Your task to perform on an android device: Open accessibility settings Image 0: 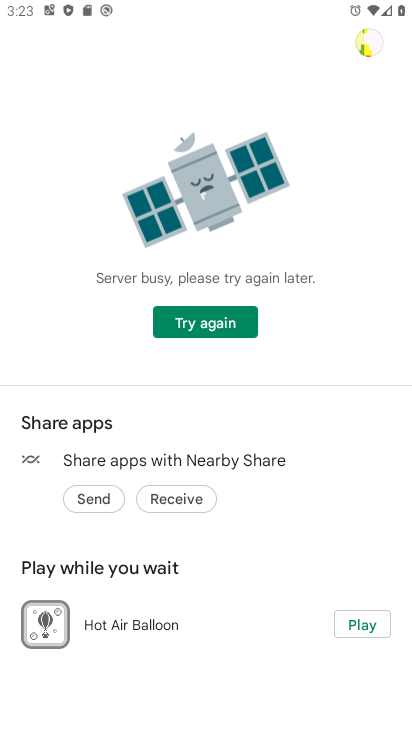
Step 0: press home button
Your task to perform on an android device: Open accessibility settings Image 1: 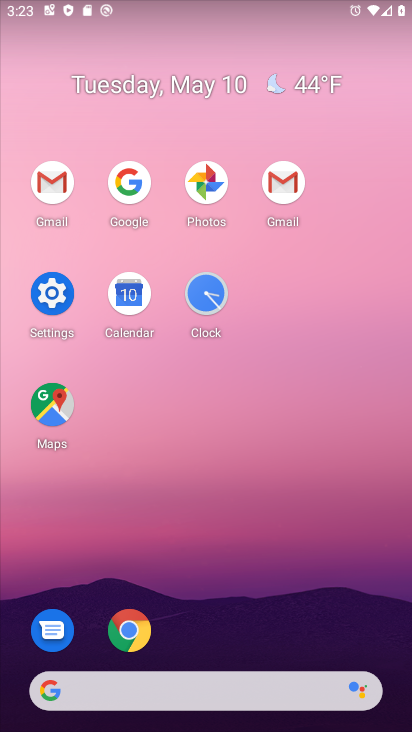
Step 1: click (57, 303)
Your task to perform on an android device: Open accessibility settings Image 2: 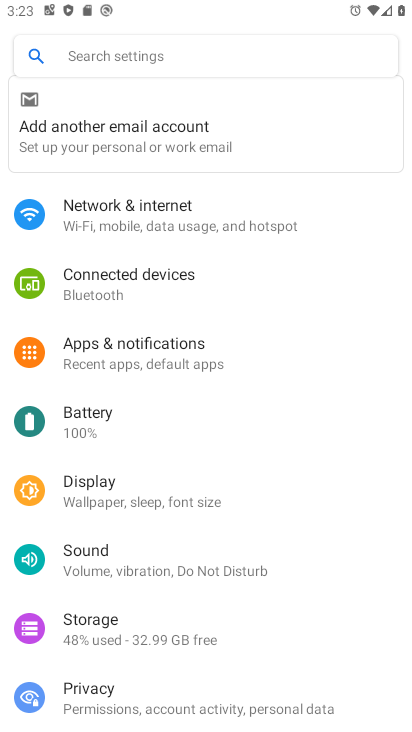
Step 2: drag from (246, 637) to (265, 180)
Your task to perform on an android device: Open accessibility settings Image 3: 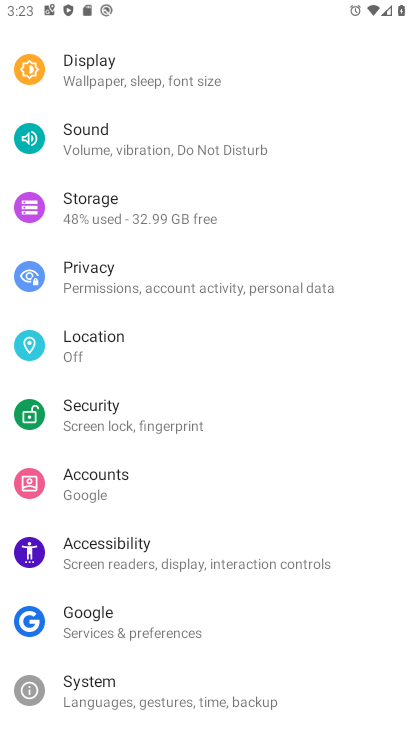
Step 3: click (245, 555)
Your task to perform on an android device: Open accessibility settings Image 4: 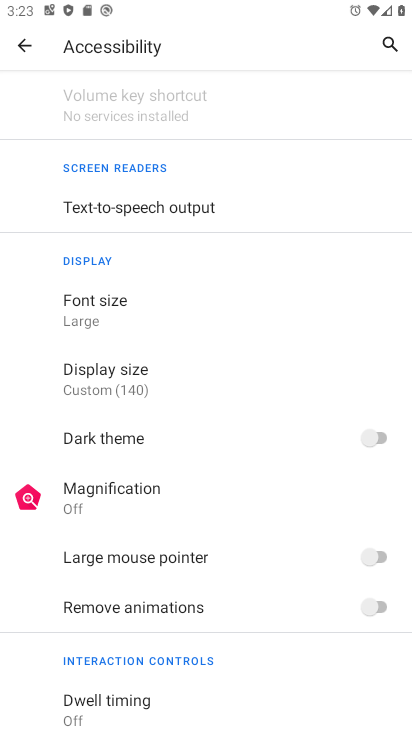
Step 4: task complete